Your task to perform on an android device: Go to privacy settings Image 0: 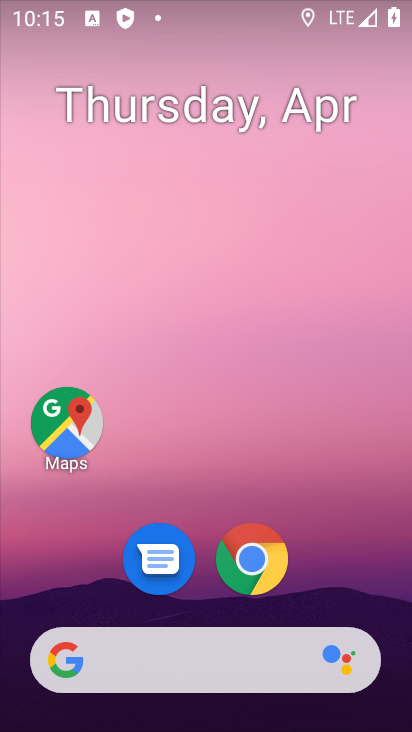
Step 0: drag from (223, 675) to (175, 127)
Your task to perform on an android device: Go to privacy settings Image 1: 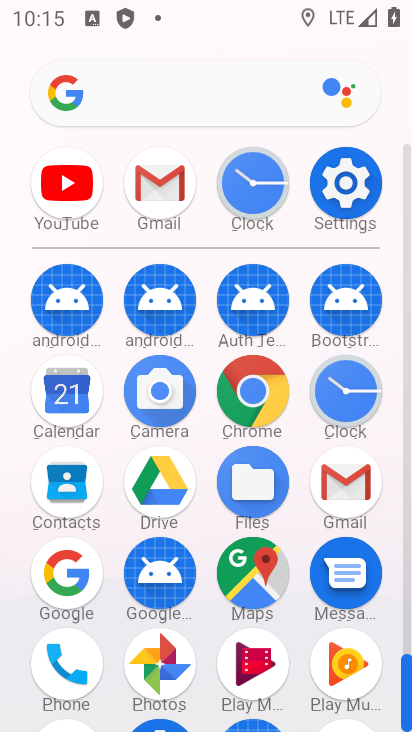
Step 1: click (342, 199)
Your task to perform on an android device: Go to privacy settings Image 2: 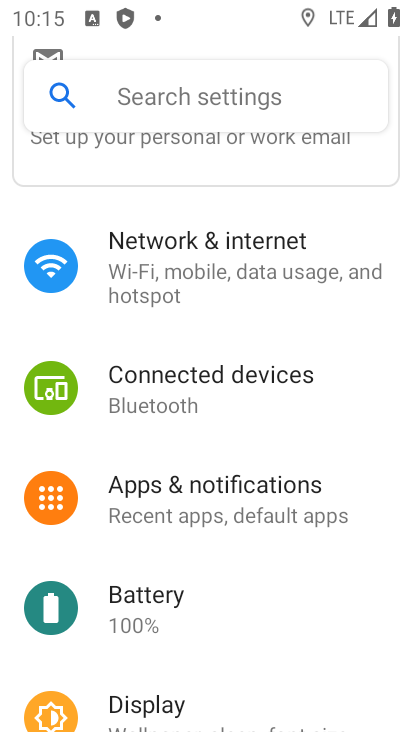
Step 2: drag from (272, 676) to (216, 213)
Your task to perform on an android device: Go to privacy settings Image 3: 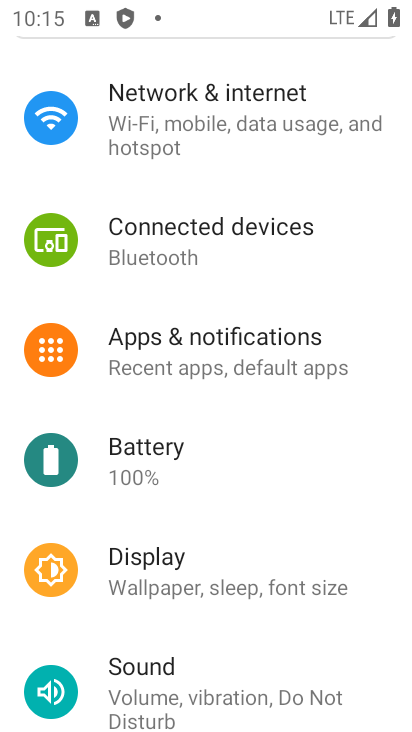
Step 3: drag from (314, 568) to (251, 191)
Your task to perform on an android device: Go to privacy settings Image 4: 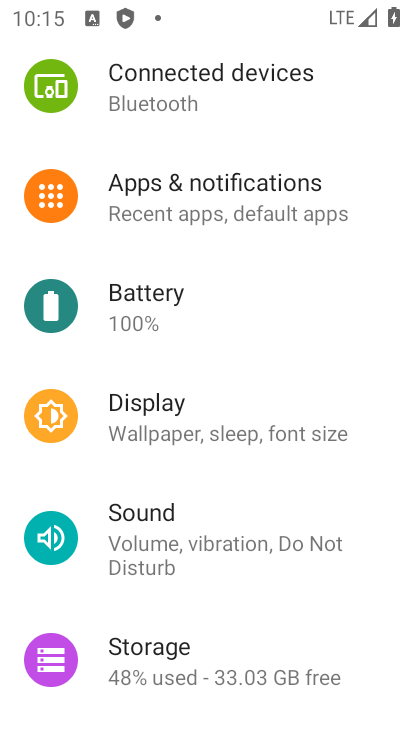
Step 4: drag from (286, 682) to (248, 197)
Your task to perform on an android device: Go to privacy settings Image 5: 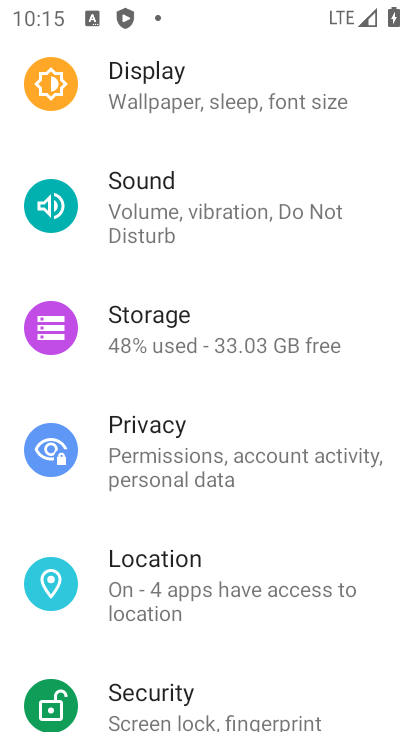
Step 5: click (191, 465)
Your task to perform on an android device: Go to privacy settings Image 6: 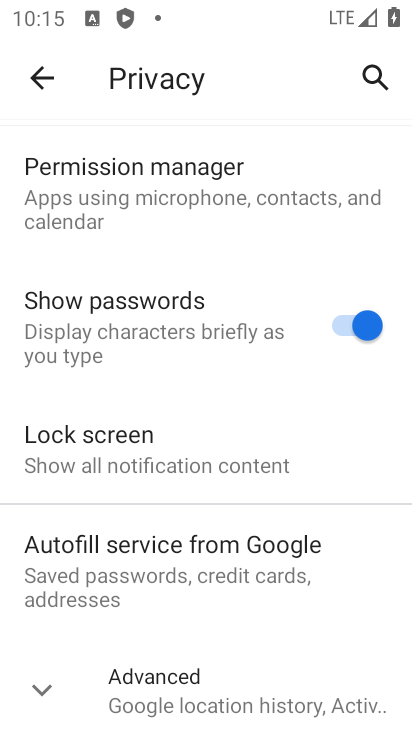
Step 6: task complete